Your task to perform on an android device: Open Google Image 0: 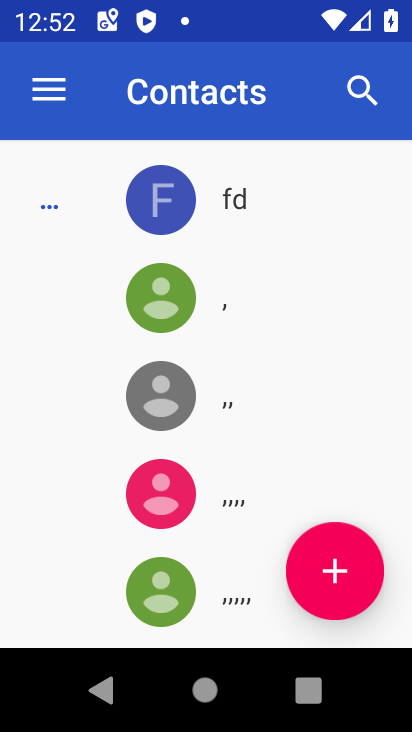
Step 0: press home button
Your task to perform on an android device: Open Google Image 1: 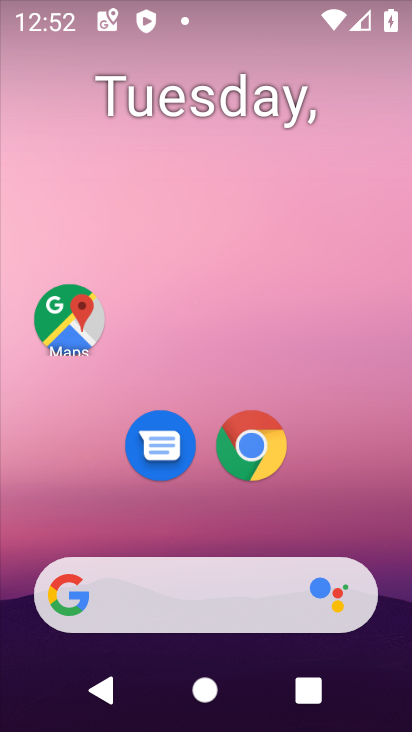
Step 1: drag from (369, 531) to (393, 69)
Your task to perform on an android device: Open Google Image 2: 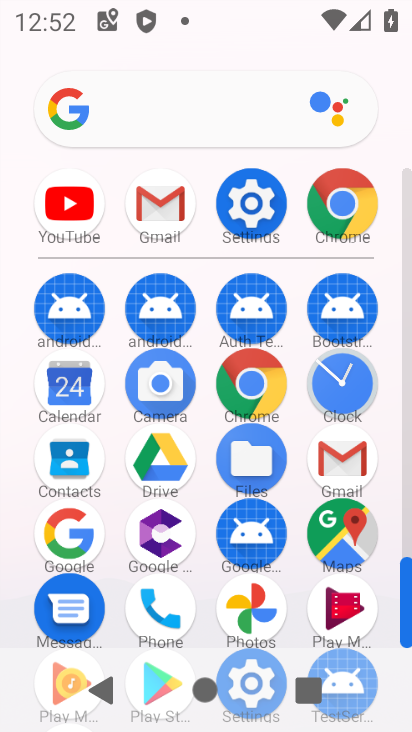
Step 2: drag from (385, 488) to (357, 108)
Your task to perform on an android device: Open Google Image 3: 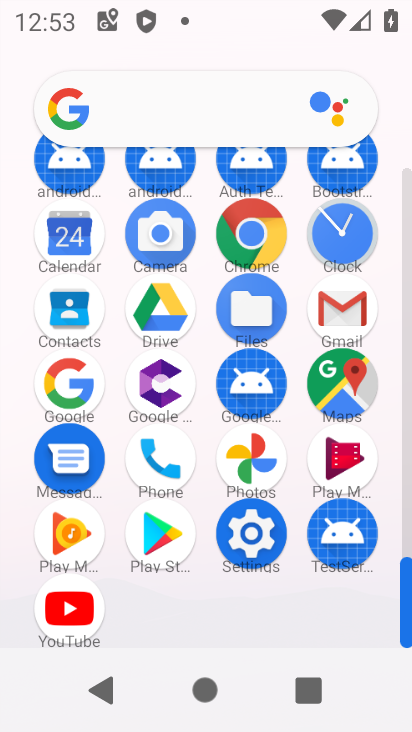
Step 3: click (56, 390)
Your task to perform on an android device: Open Google Image 4: 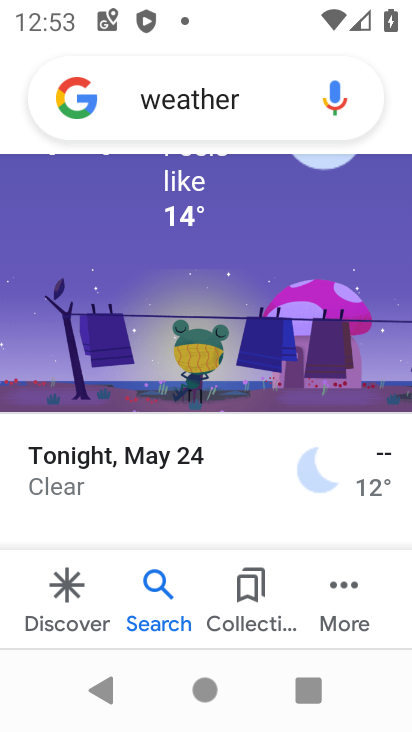
Step 4: task complete